Your task to perform on an android device: delete the emails in spam in the gmail app Image 0: 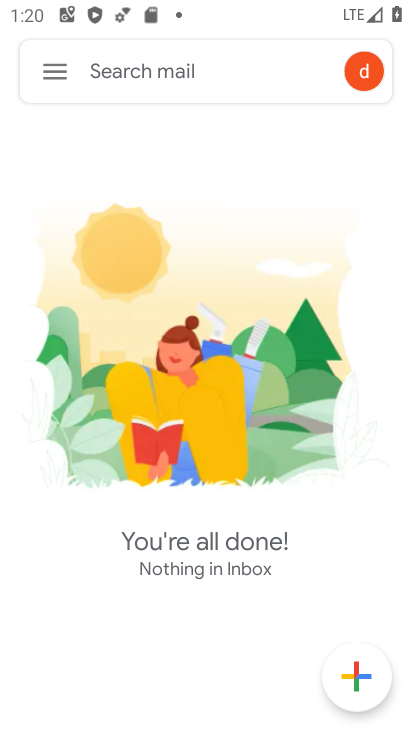
Step 0: press home button
Your task to perform on an android device: delete the emails in spam in the gmail app Image 1: 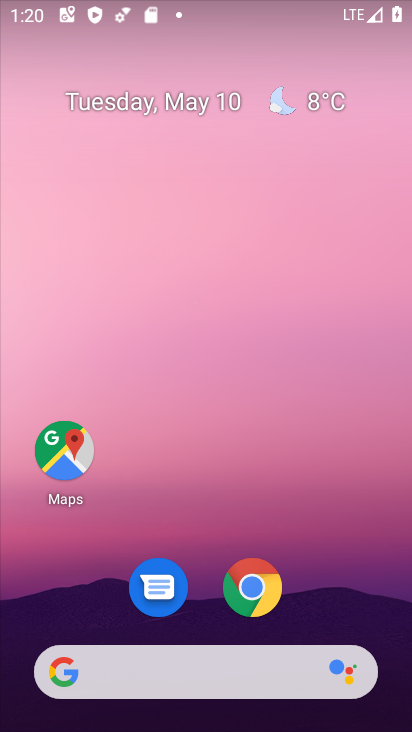
Step 1: drag from (232, 473) to (198, 94)
Your task to perform on an android device: delete the emails in spam in the gmail app Image 2: 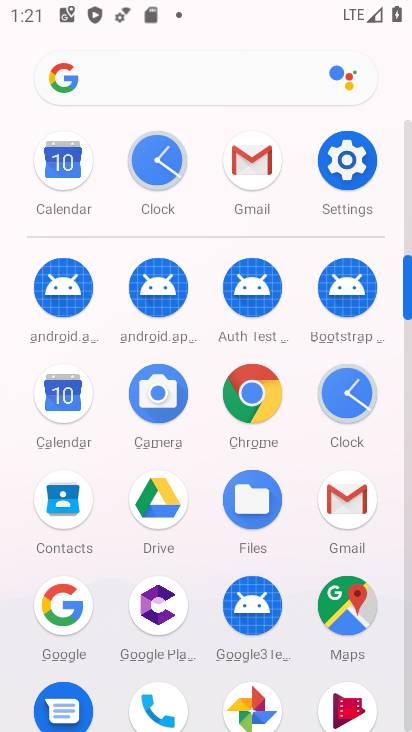
Step 2: click (261, 168)
Your task to perform on an android device: delete the emails in spam in the gmail app Image 3: 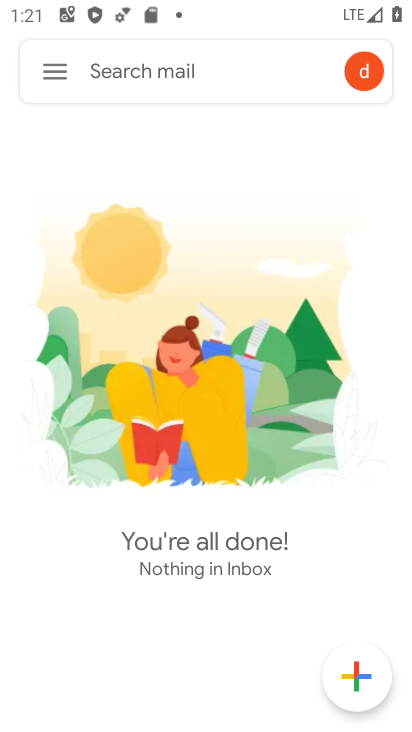
Step 3: click (51, 77)
Your task to perform on an android device: delete the emails in spam in the gmail app Image 4: 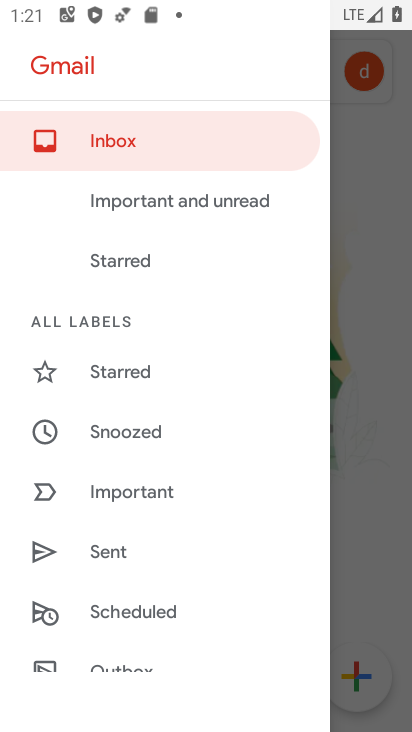
Step 4: drag from (136, 570) to (113, 263)
Your task to perform on an android device: delete the emails in spam in the gmail app Image 5: 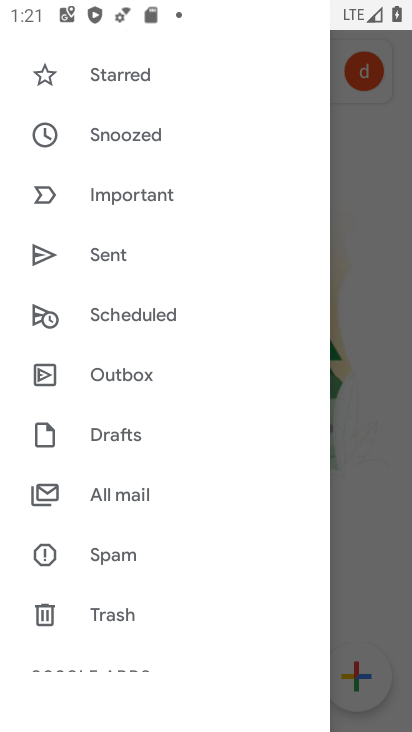
Step 5: click (121, 563)
Your task to perform on an android device: delete the emails in spam in the gmail app Image 6: 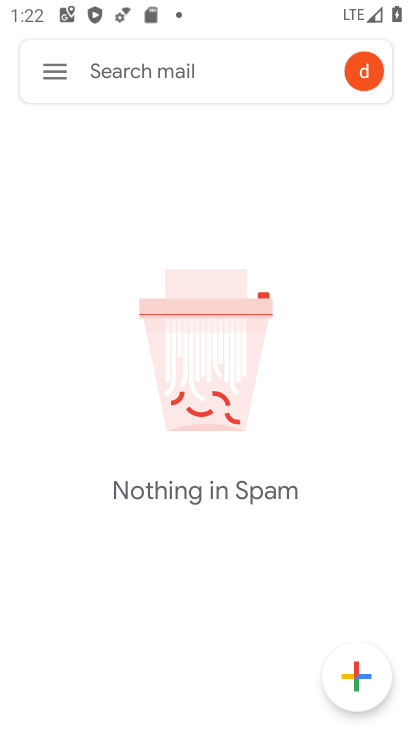
Step 6: task complete